Your task to perform on an android device: Open eBay Image 0: 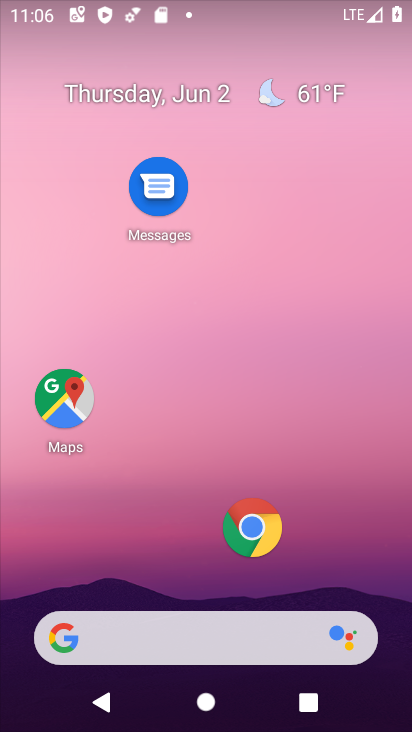
Step 0: click (247, 514)
Your task to perform on an android device: Open eBay Image 1: 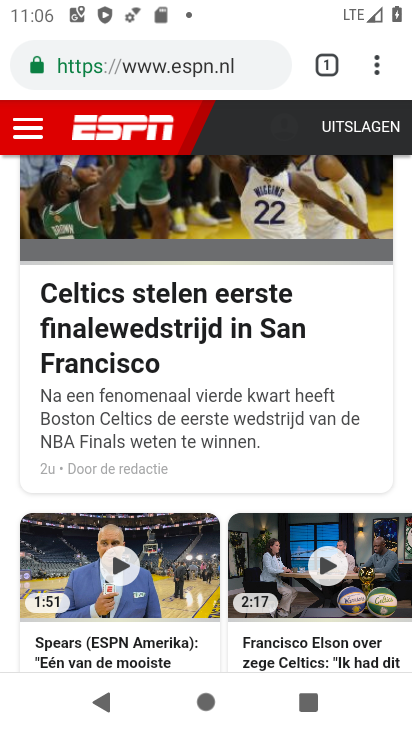
Step 1: click (327, 66)
Your task to perform on an android device: Open eBay Image 2: 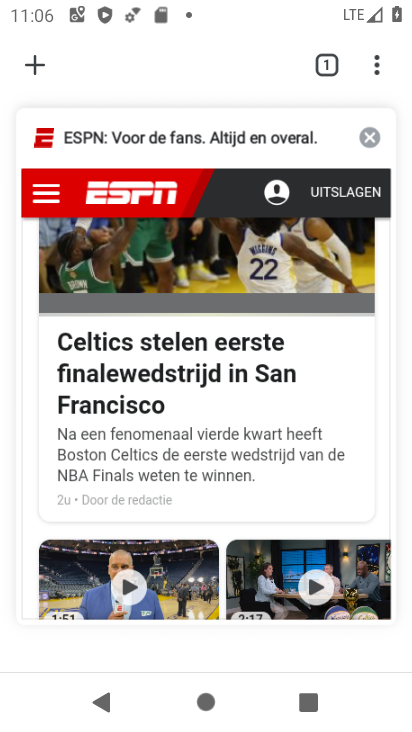
Step 2: click (32, 67)
Your task to perform on an android device: Open eBay Image 3: 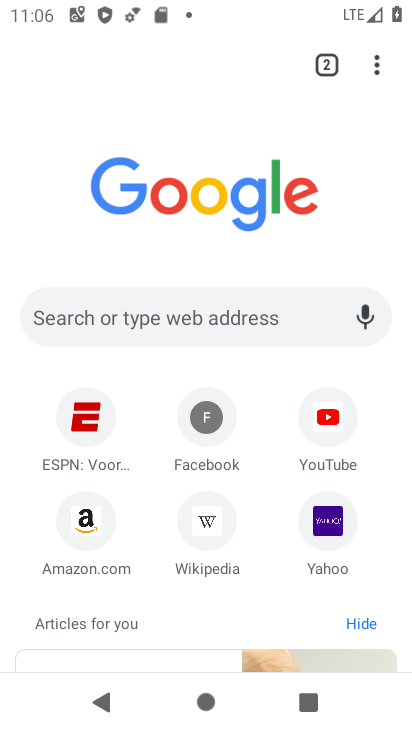
Step 3: click (168, 302)
Your task to perform on an android device: Open eBay Image 4: 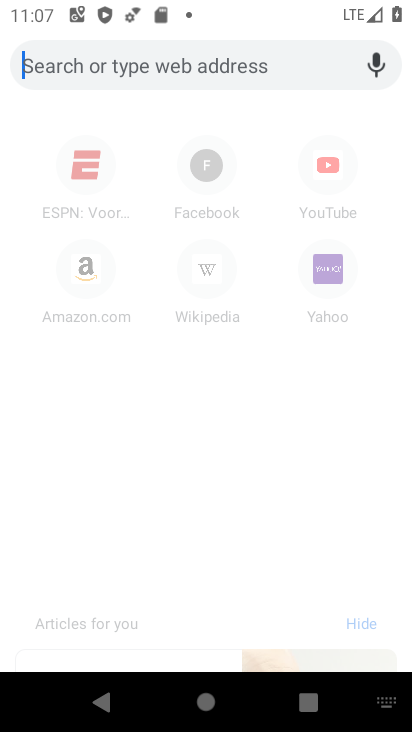
Step 4: type "ebay"
Your task to perform on an android device: Open eBay Image 5: 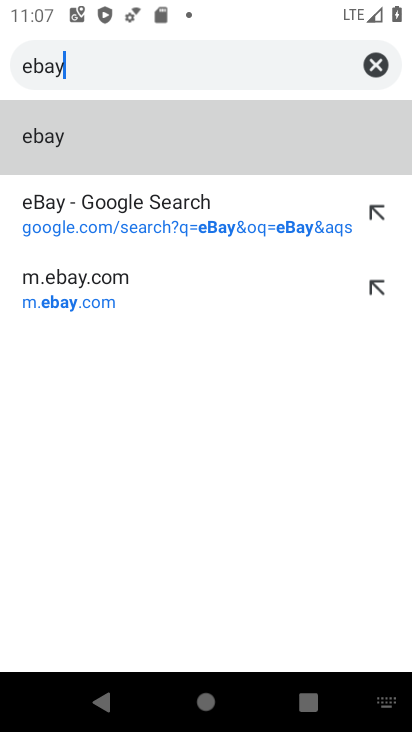
Step 5: click (189, 213)
Your task to perform on an android device: Open eBay Image 6: 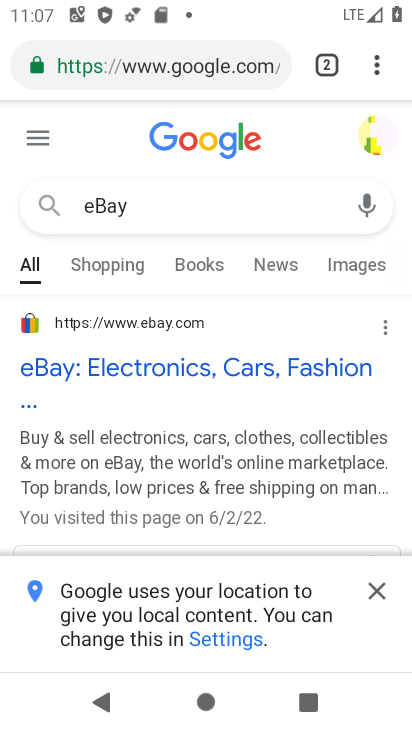
Step 6: click (125, 365)
Your task to perform on an android device: Open eBay Image 7: 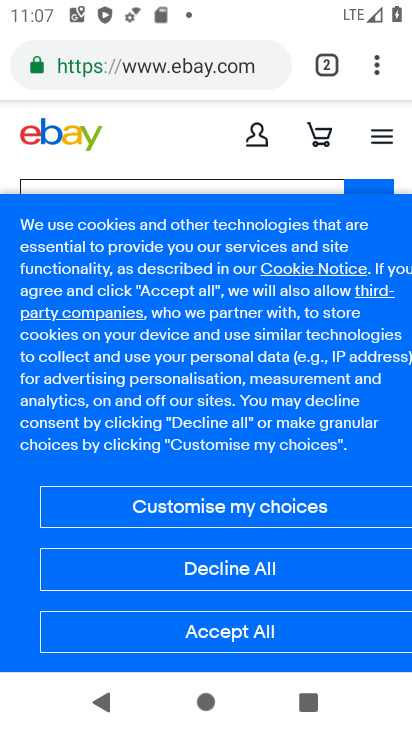
Step 7: click (248, 631)
Your task to perform on an android device: Open eBay Image 8: 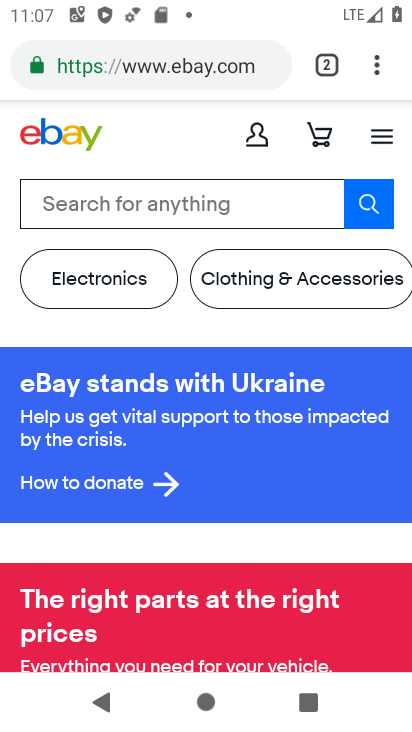
Step 8: task complete